Your task to perform on an android device: Show the shopping cart on costco. Add "dell xps" to the cart on costco, then select checkout. Image 0: 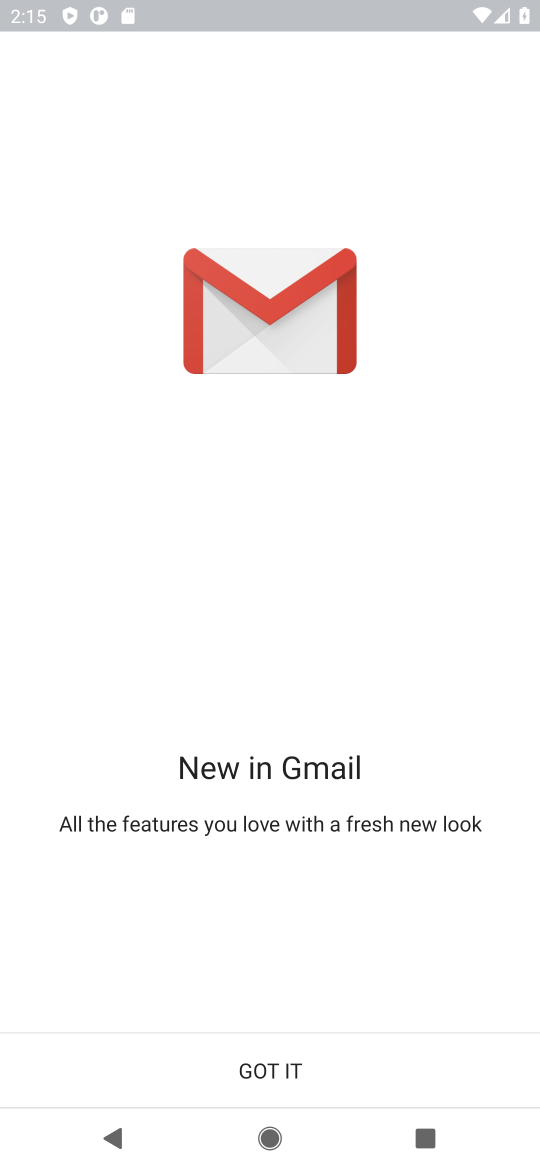
Step 0: press home button
Your task to perform on an android device: Show the shopping cart on costco. Add "dell xps" to the cart on costco, then select checkout. Image 1: 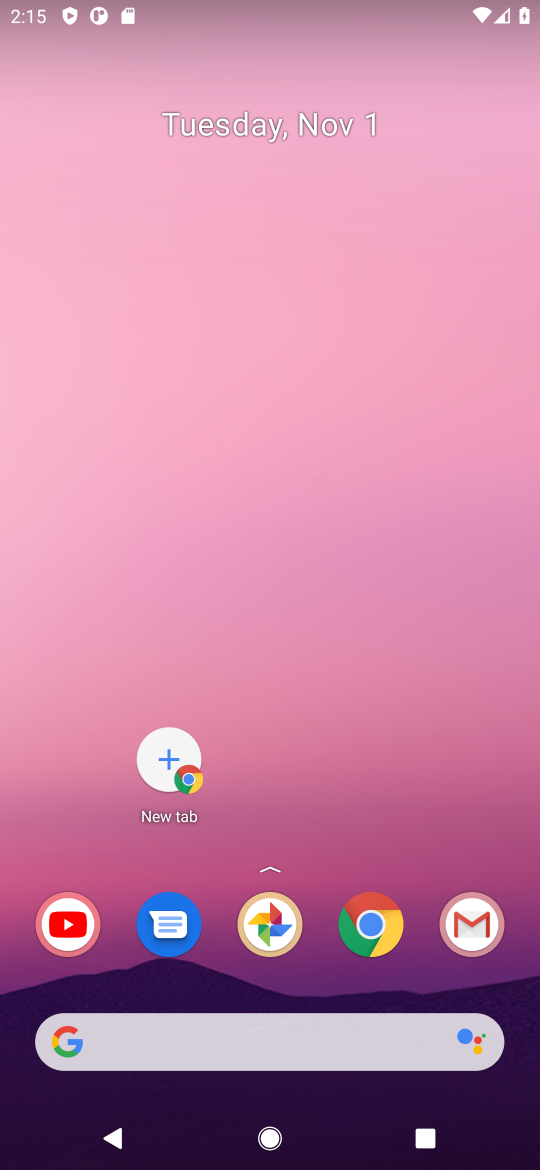
Step 1: click (377, 940)
Your task to perform on an android device: Show the shopping cart on costco. Add "dell xps" to the cart on costco, then select checkout. Image 2: 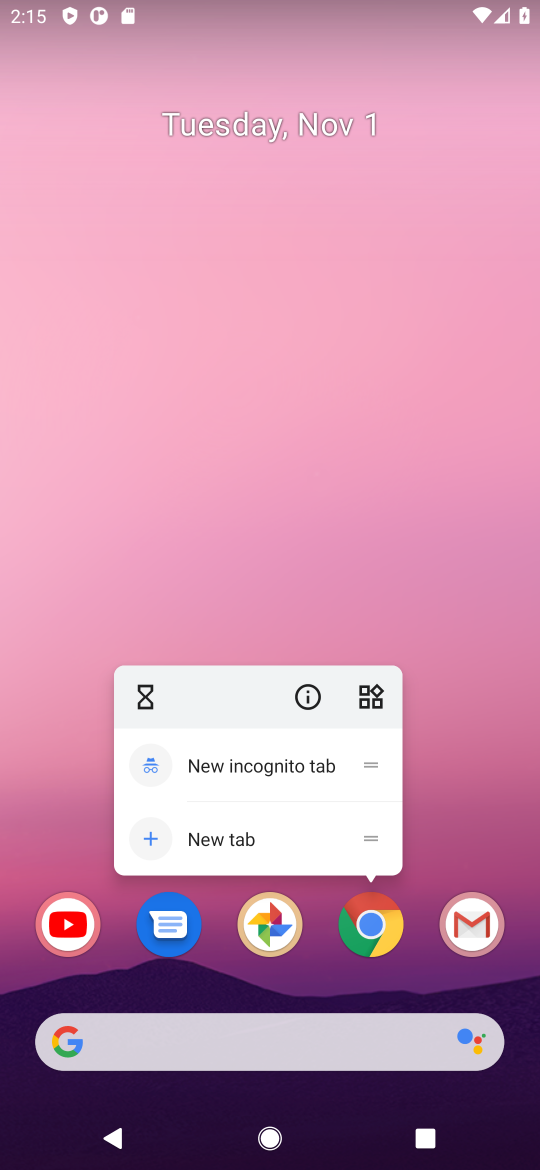
Step 2: click (391, 927)
Your task to perform on an android device: Show the shopping cart on costco. Add "dell xps" to the cart on costco, then select checkout. Image 3: 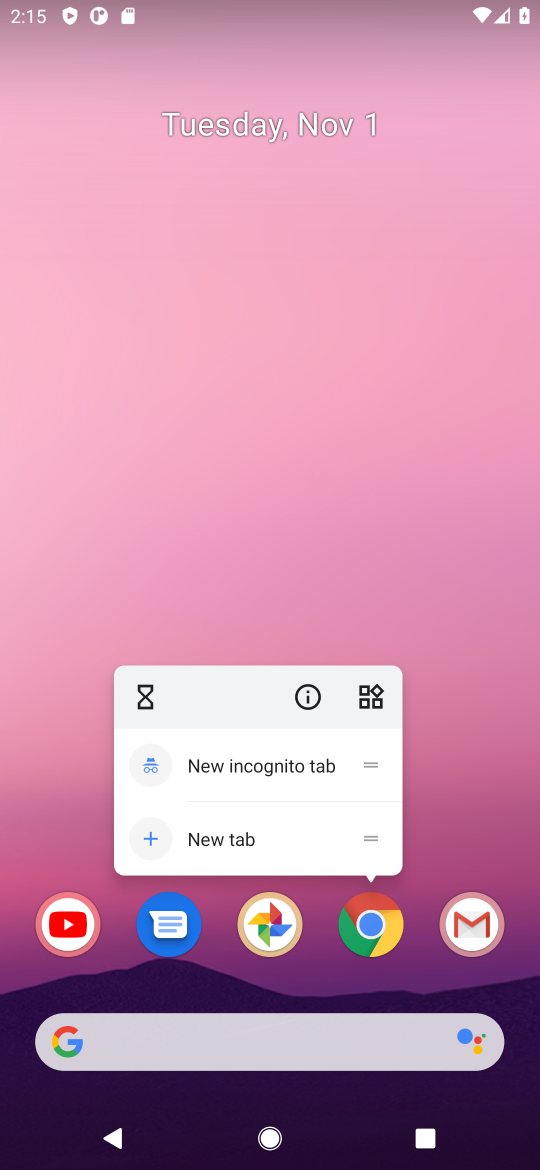
Step 3: click (395, 917)
Your task to perform on an android device: Show the shopping cart on costco. Add "dell xps" to the cart on costco, then select checkout. Image 4: 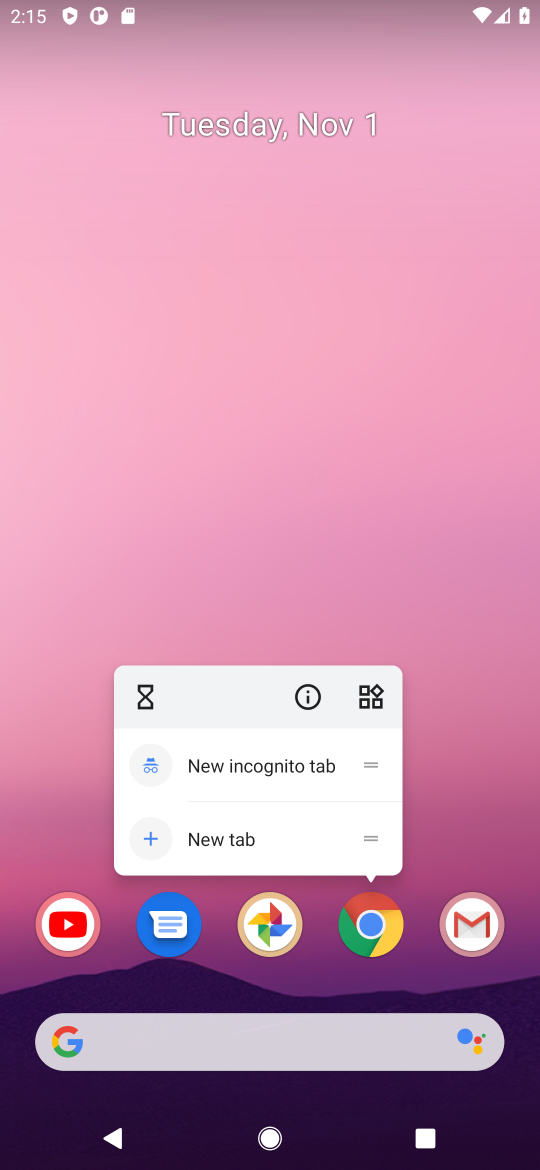
Step 4: click (374, 916)
Your task to perform on an android device: Show the shopping cart on costco. Add "dell xps" to the cart on costco, then select checkout. Image 5: 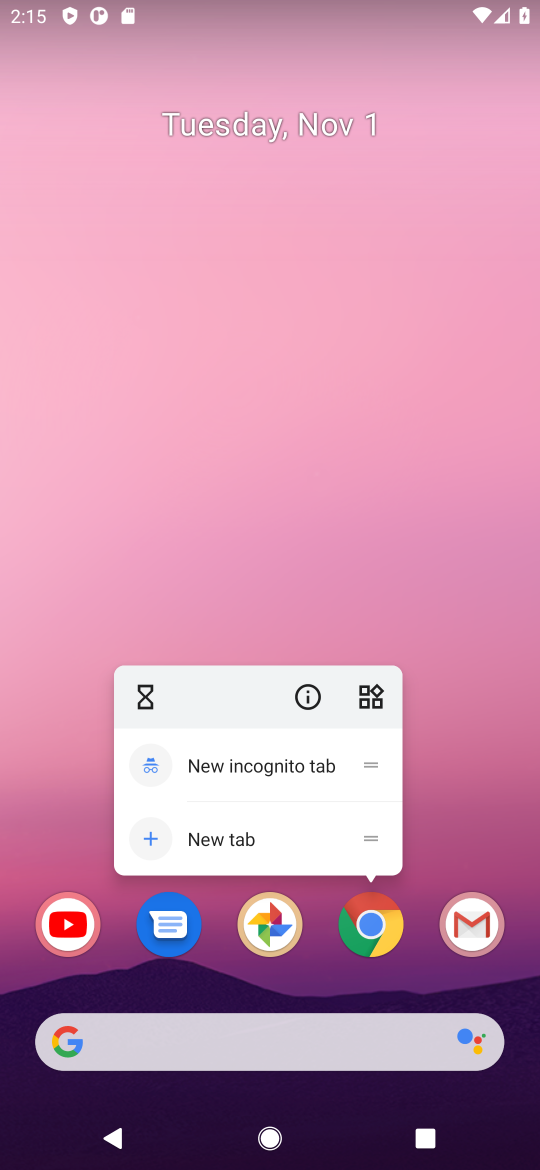
Step 5: click (376, 944)
Your task to perform on an android device: Show the shopping cart on costco. Add "dell xps" to the cart on costco, then select checkout. Image 6: 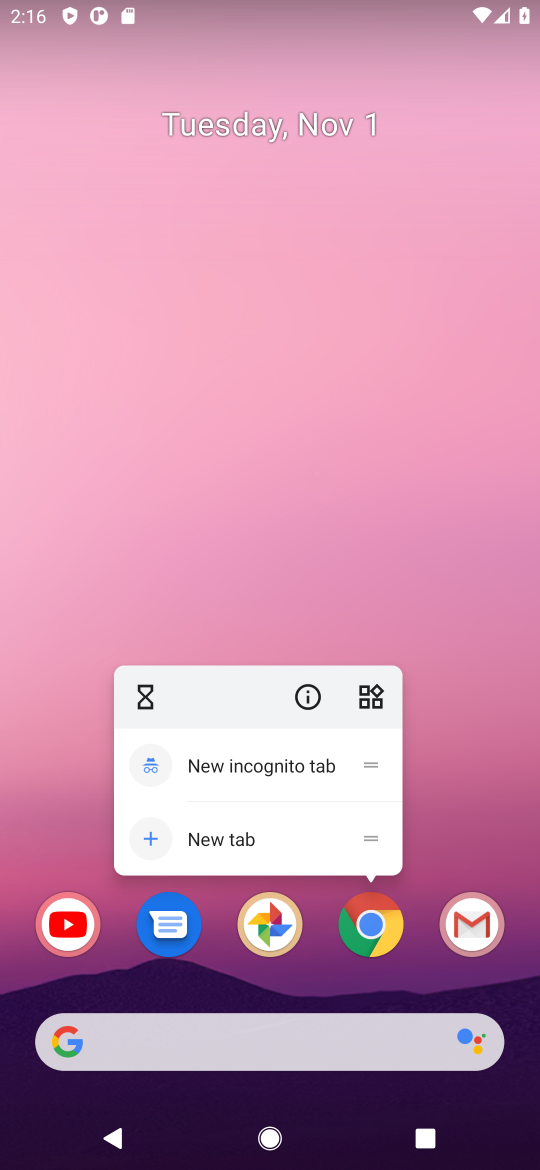
Step 6: click (377, 942)
Your task to perform on an android device: Show the shopping cart on costco. Add "dell xps" to the cart on costco, then select checkout. Image 7: 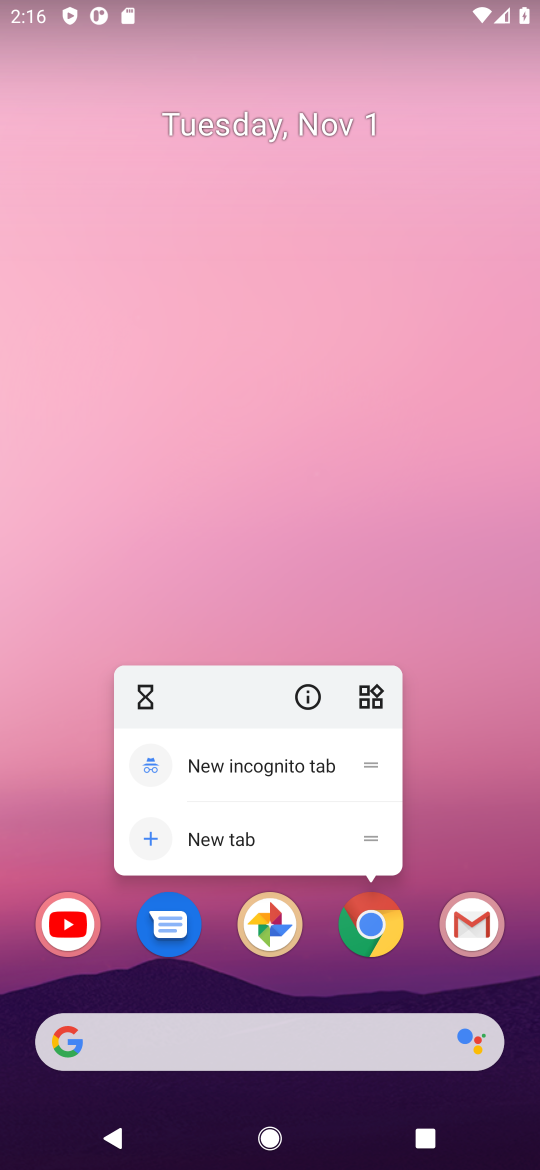
Step 7: click (379, 941)
Your task to perform on an android device: Show the shopping cart on costco. Add "dell xps" to the cart on costco, then select checkout. Image 8: 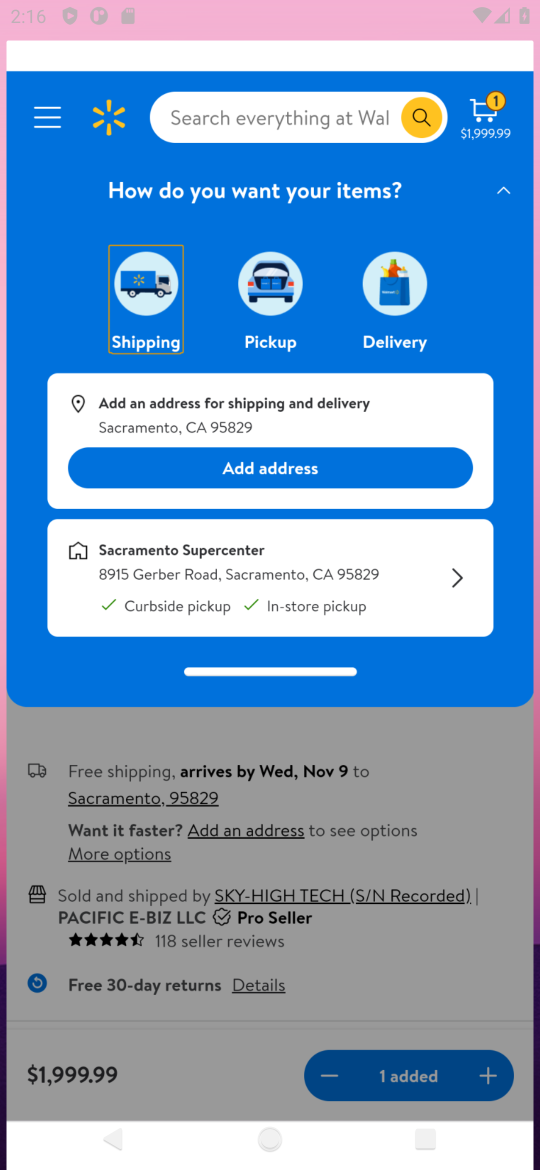
Step 8: press home button
Your task to perform on an android device: Show the shopping cart on costco. Add "dell xps" to the cart on costco, then select checkout. Image 9: 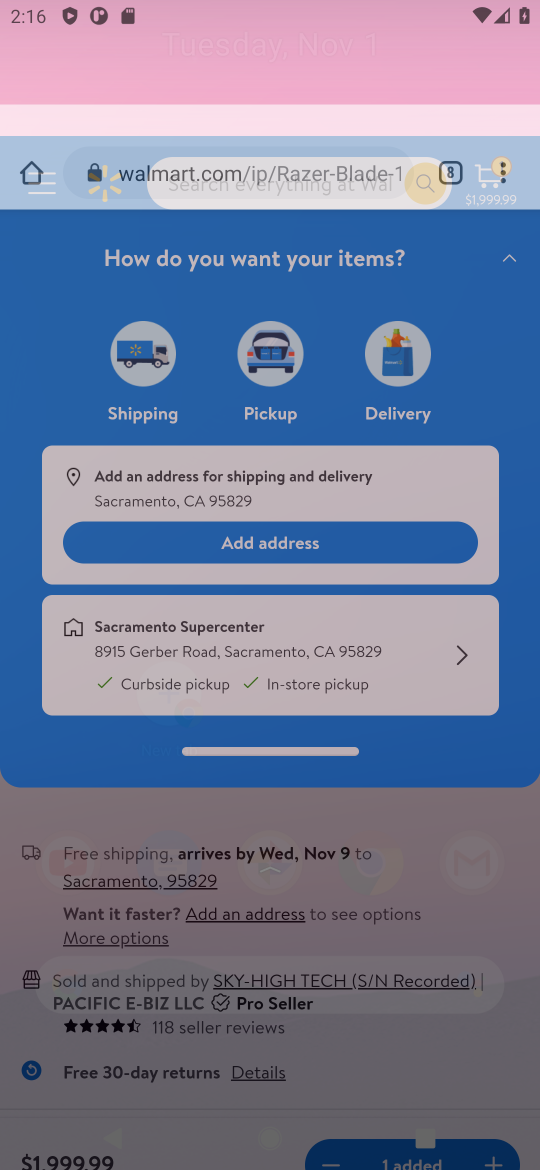
Step 9: press home button
Your task to perform on an android device: Show the shopping cart on costco. Add "dell xps" to the cart on costco, then select checkout. Image 10: 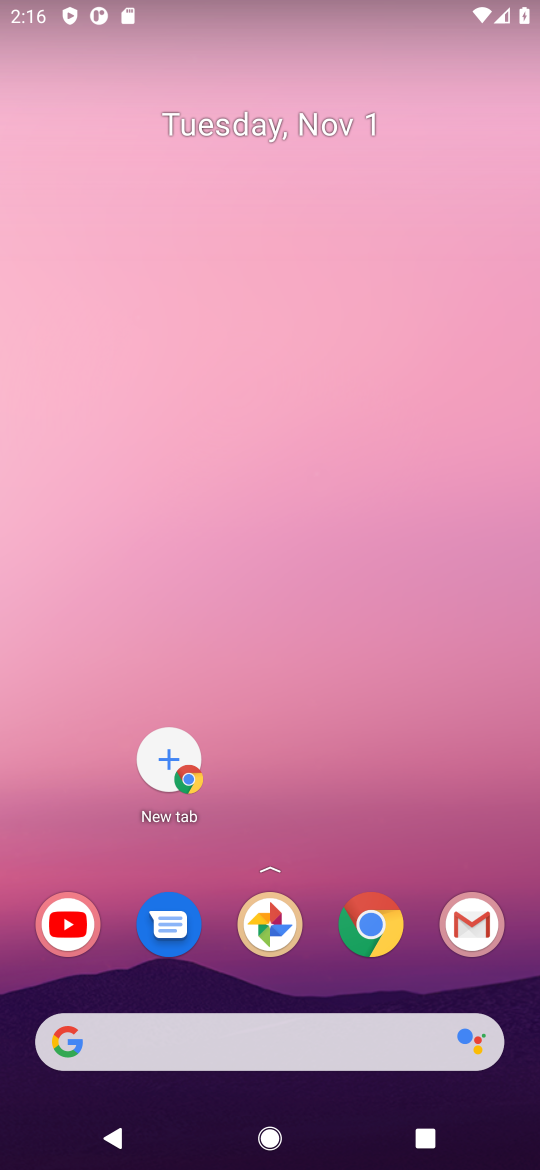
Step 10: press back button
Your task to perform on an android device: Show the shopping cart on costco. Add "dell xps" to the cart on costco, then select checkout. Image 11: 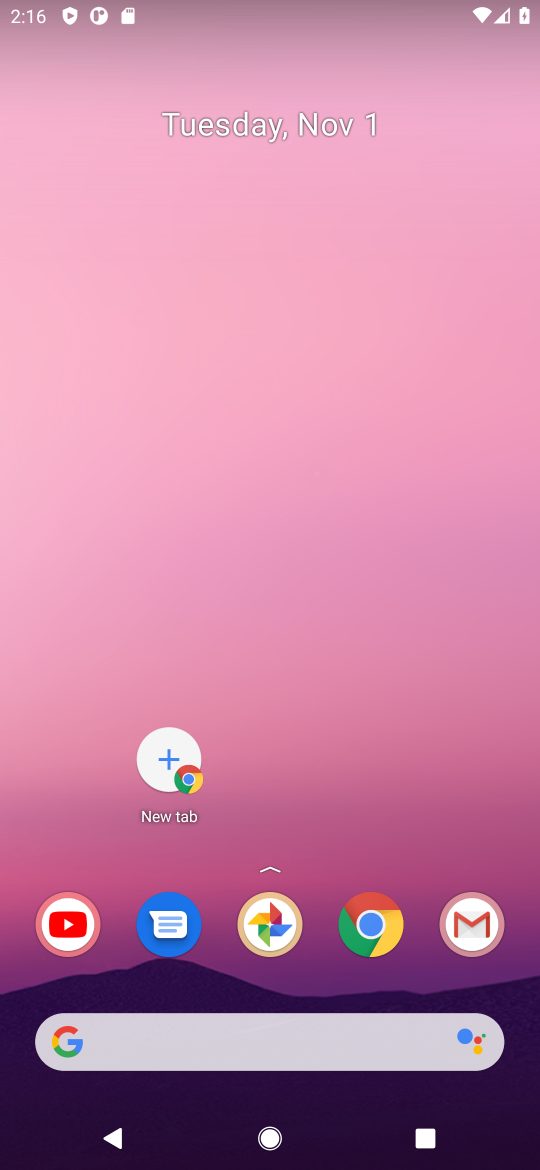
Step 11: click (373, 933)
Your task to perform on an android device: Show the shopping cart on costco. Add "dell xps" to the cart on costco, then select checkout. Image 12: 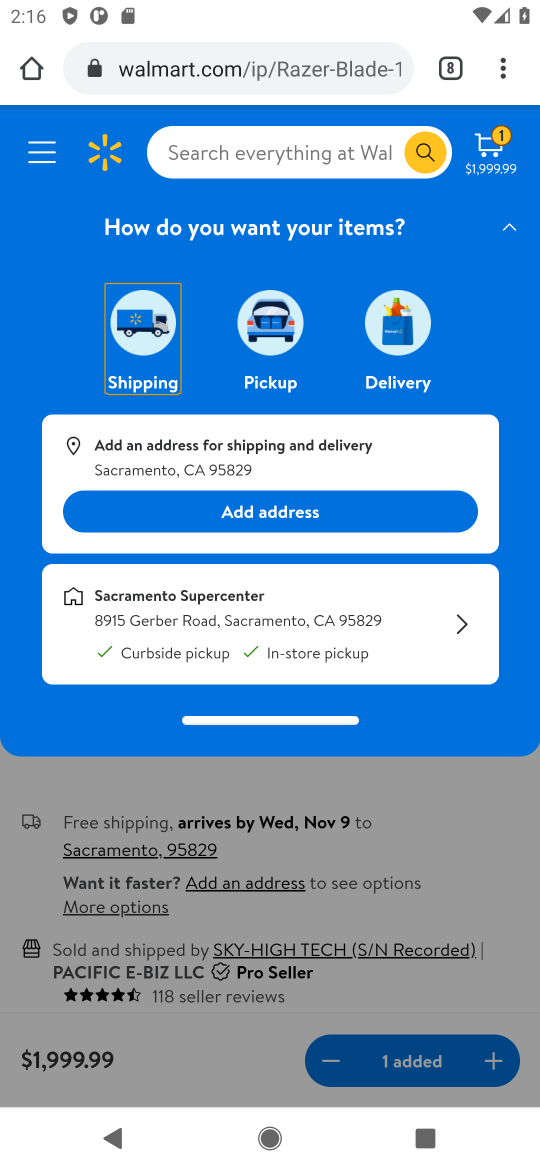
Step 12: click (271, 160)
Your task to perform on an android device: Show the shopping cart on costco. Add "dell xps" to the cart on costco, then select checkout. Image 13: 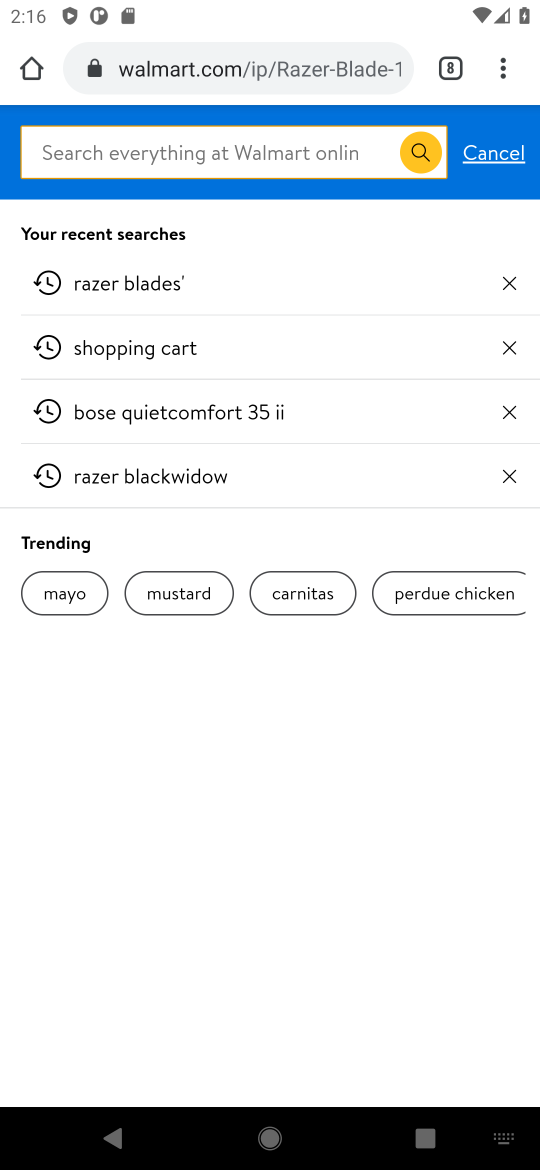
Step 13: type "dell xps"
Your task to perform on an android device: Show the shopping cart on costco. Add "dell xps" to the cart on costco, then select checkout. Image 14: 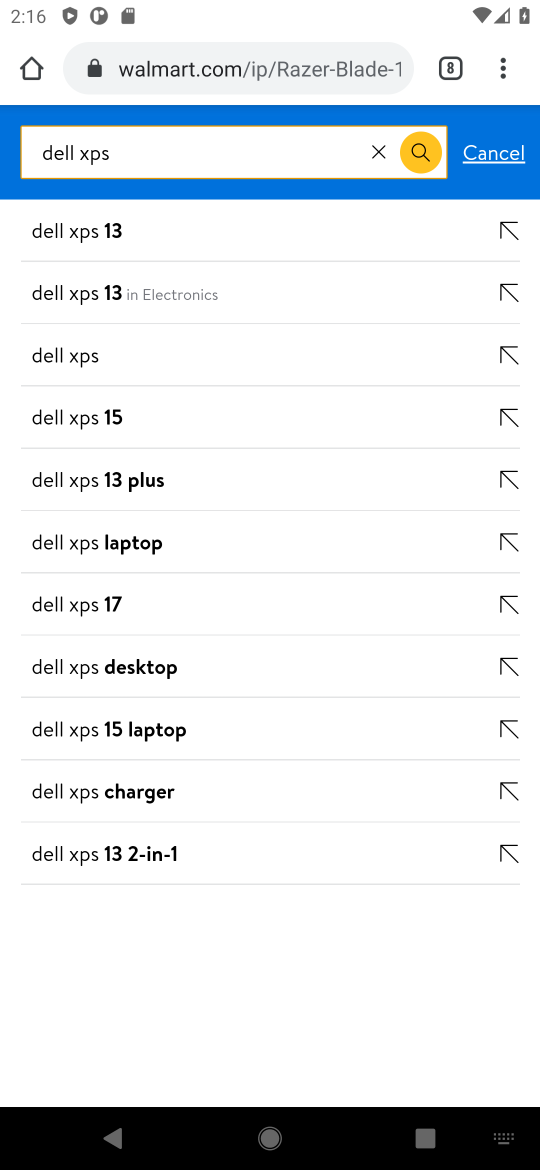
Step 14: click (360, 66)
Your task to perform on an android device: Show the shopping cart on costco. Add "dell xps" to the cart on costco, then select checkout. Image 15: 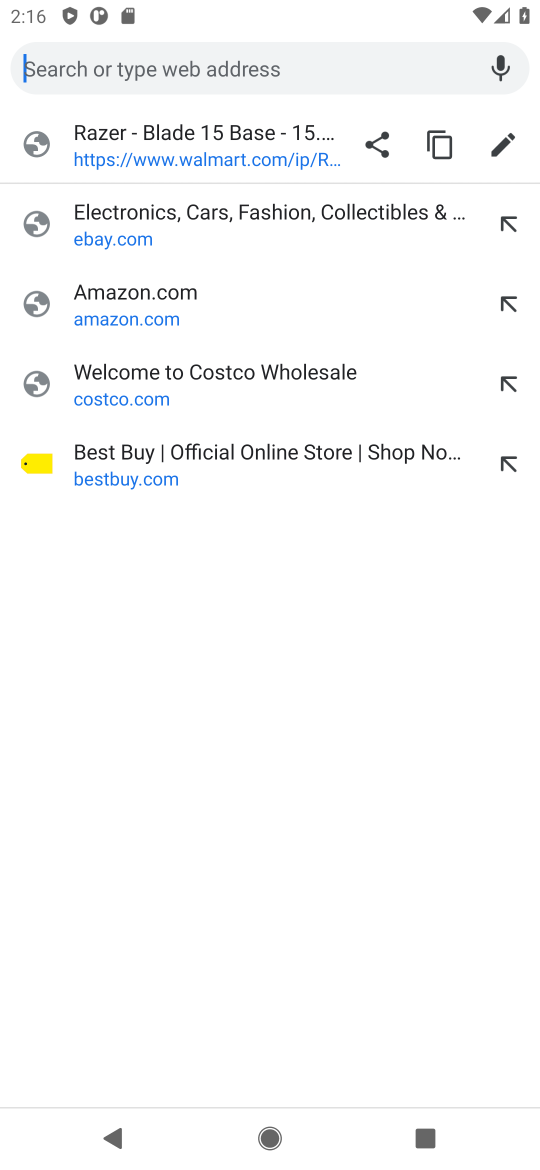
Step 15: type "costco"
Your task to perform on an android device: Show the shopping cart on costco. Add "dell xps" to the cart on costco, then select checkout. Image 16: 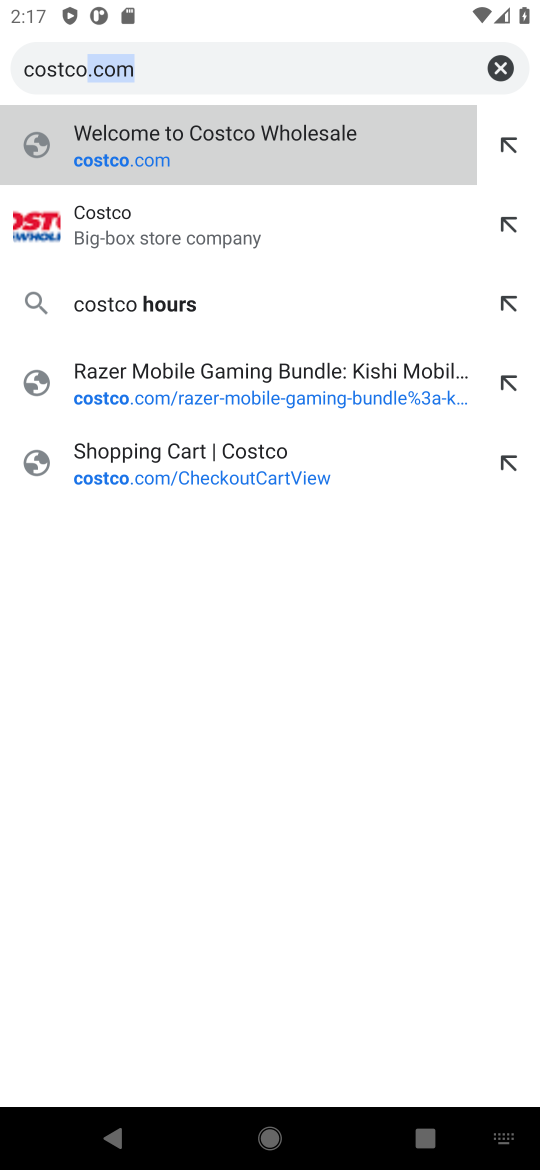
Step 16: type ""
Your task to perform on an android device: Show the shopping cart on costco. Add "dell xps" to the cart on costco, then select checkout. Image 17: 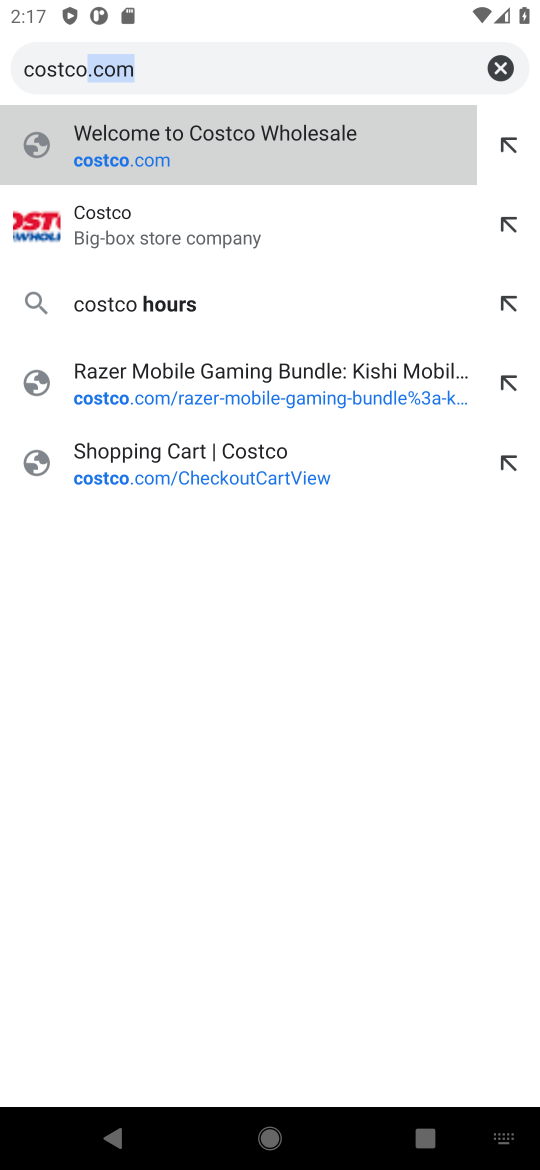
Step 17: click (116, 229)
Your task to perform on an android device: Show the shopping cart on costco. Add "dell xps" to the cart on costco, then select checkout. Image 18: 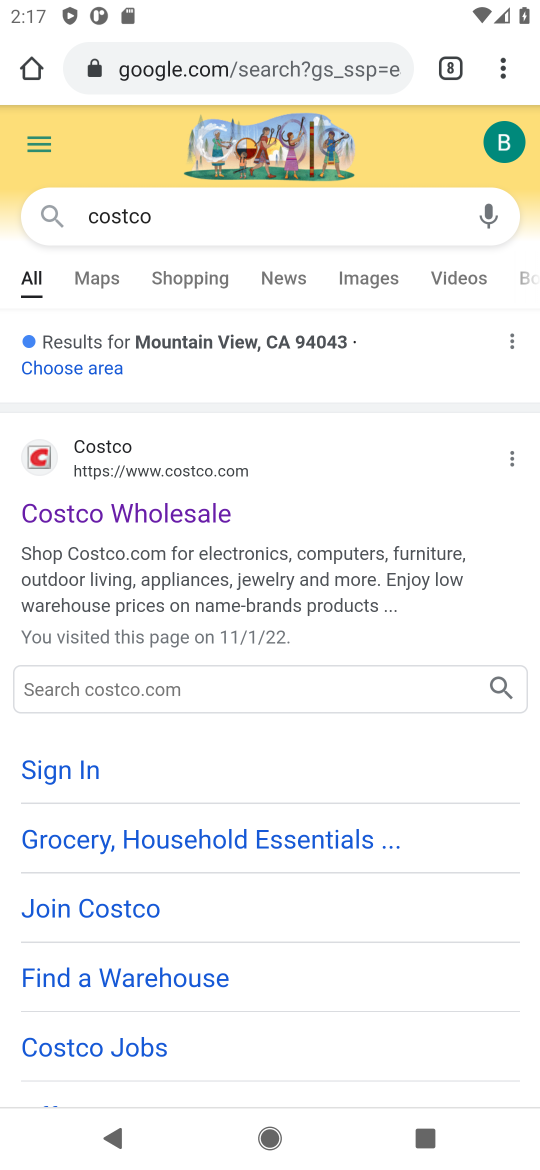
Step 18: click (151, 514)
Your task to perform on an android device: Show the shopping cart on costco. Add "dell xps" to the cart on costco, then select checkout. Image 19: 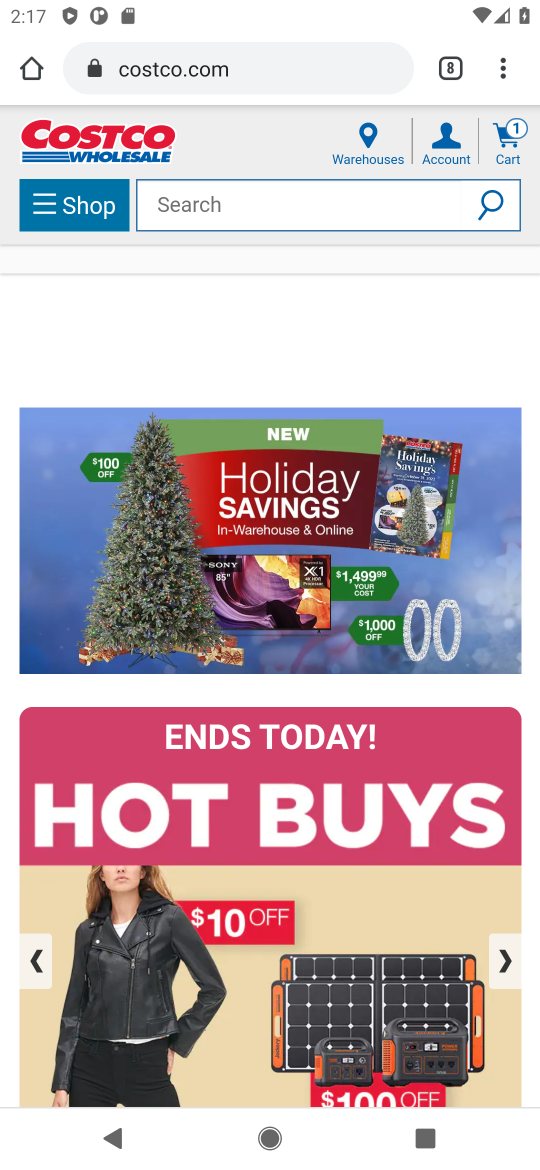
Step 19: click (240, 217)
Your task to perform on an android device: Show the shopping cart on costco. Add "dell xps" to the cart on costco, then select checkout. Image 20: 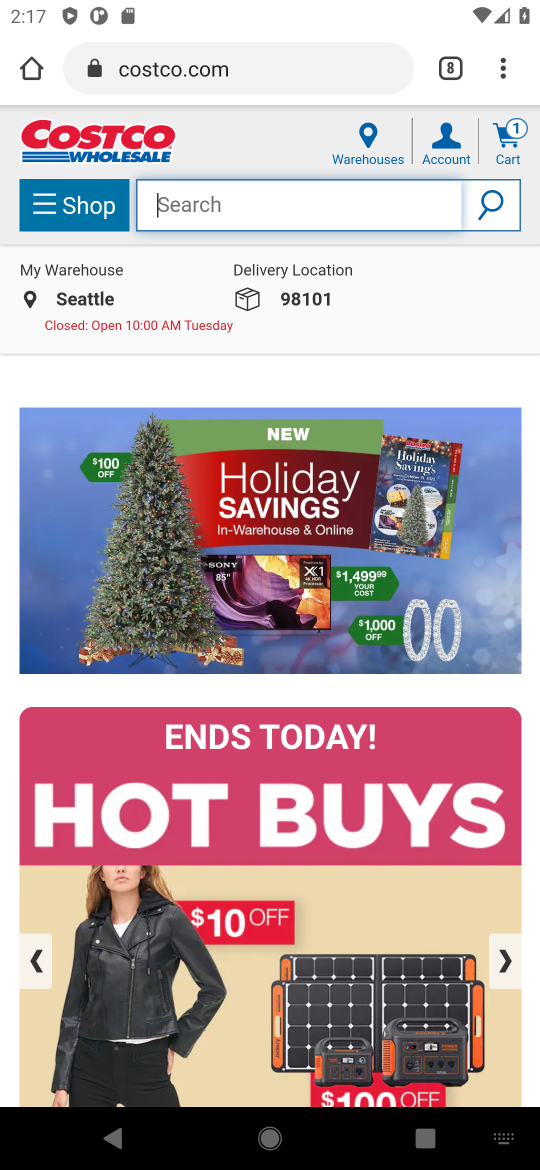
Step 20: type "dell xps"
Your task to perform on an android device: Show the shopping cart on costco. Add "dell xps" to the cart on costco, then select checkout. Image 21: 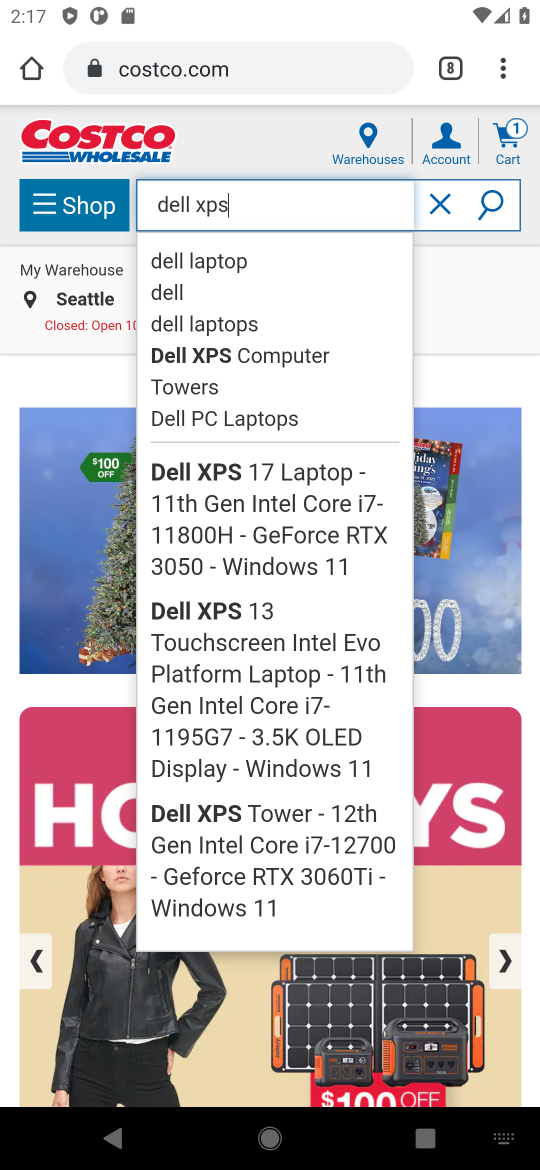
Step 21: click (182, 360)
Your task to perform on an android device: Show the shopping cart on costco. Add "dell xps" to the cart on costco, then select checkout. Image 22: 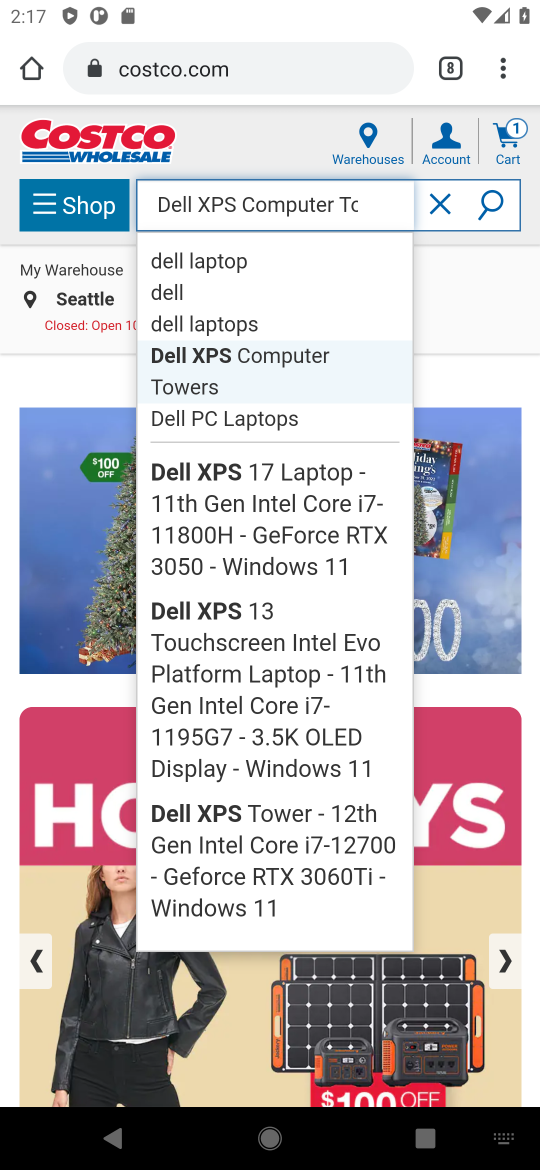
Step 22: click (316, 376)
Your task to perform on an android device: Show the shopping cart on costco. Add "dell xps" to the cart on costco, then select checkout. Image 23: 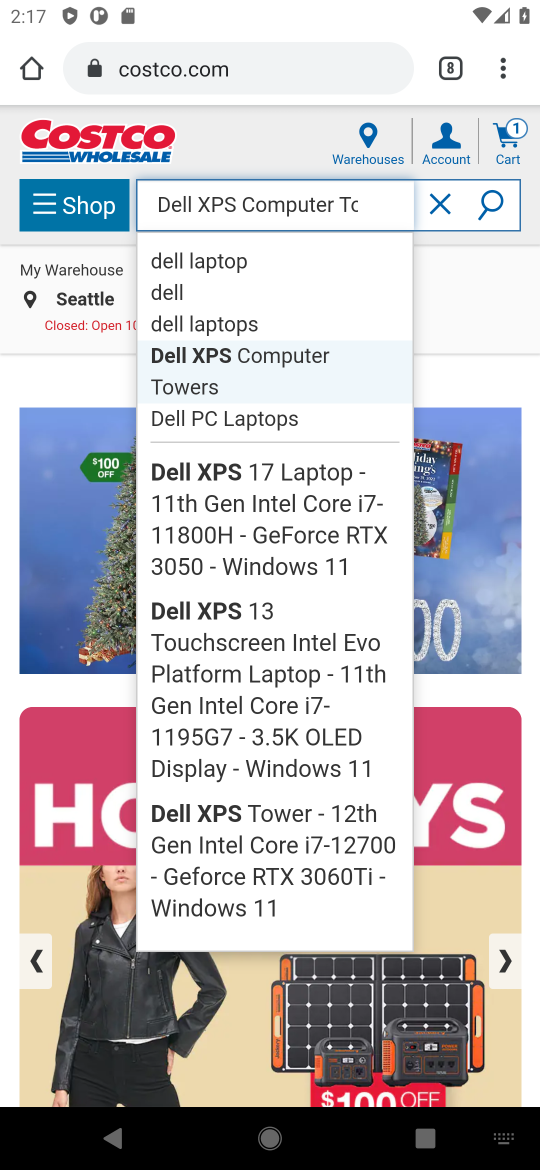
Step 23: click (357, 385)
Your task to perform on an android device: Show the shopping cart on costco. Add "dell xps" to the cart on costco, then select checkout. Image 24: 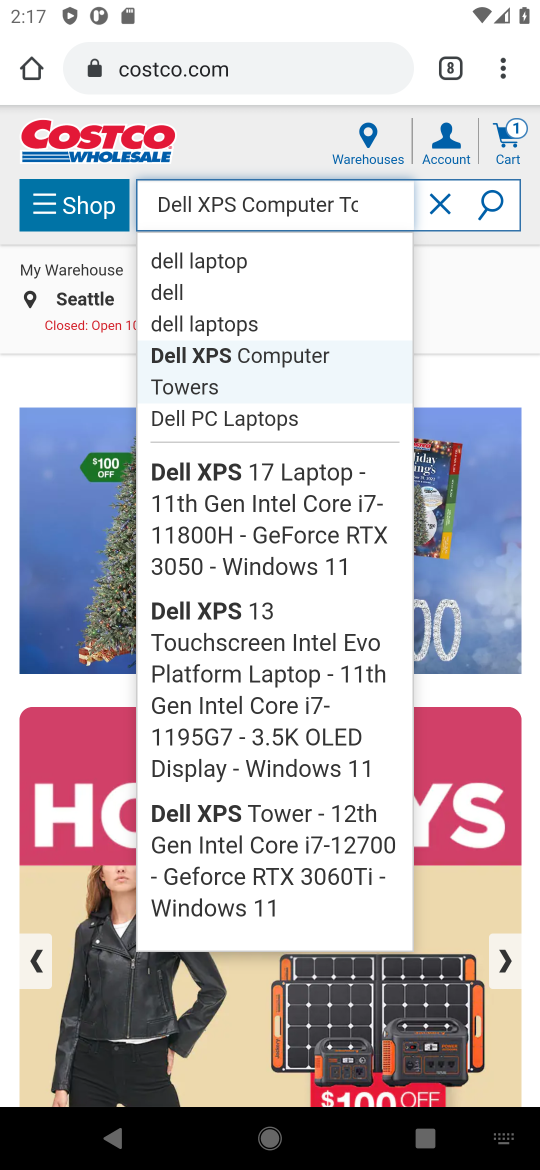
Step 24: click (356, 369)
Your task to perform on an android device: Show the shopping cart on costco. Add "dell xps" to the cart on costco, then select checkout. Image 25: 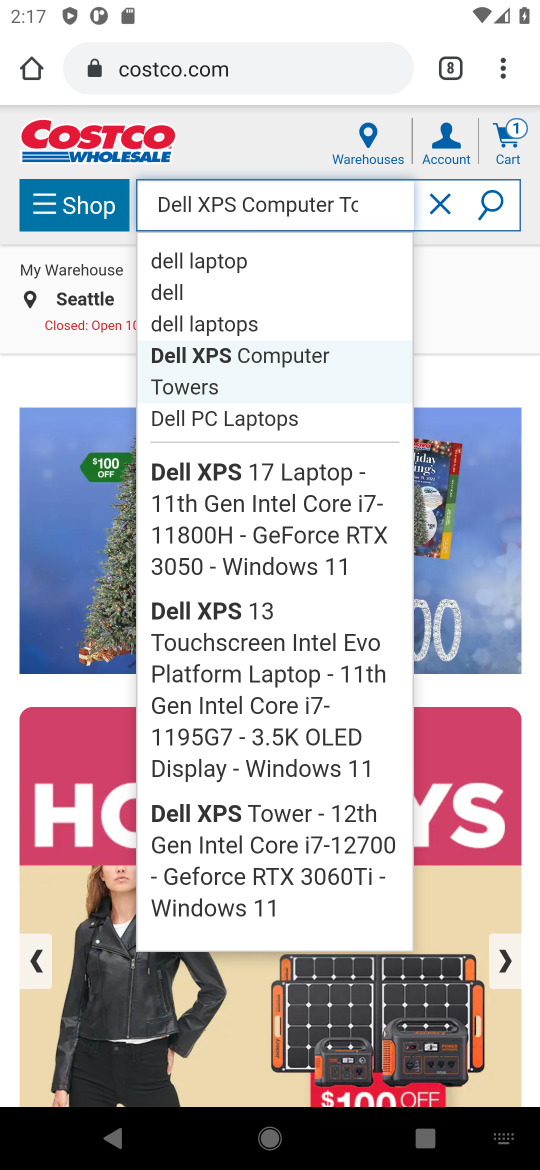
Step 25: click (356, 369)
Your task to perform on an android device: Show the shopping cart on costco. Add "dell xps" to the cart on costco, then select checkout. Image 26: 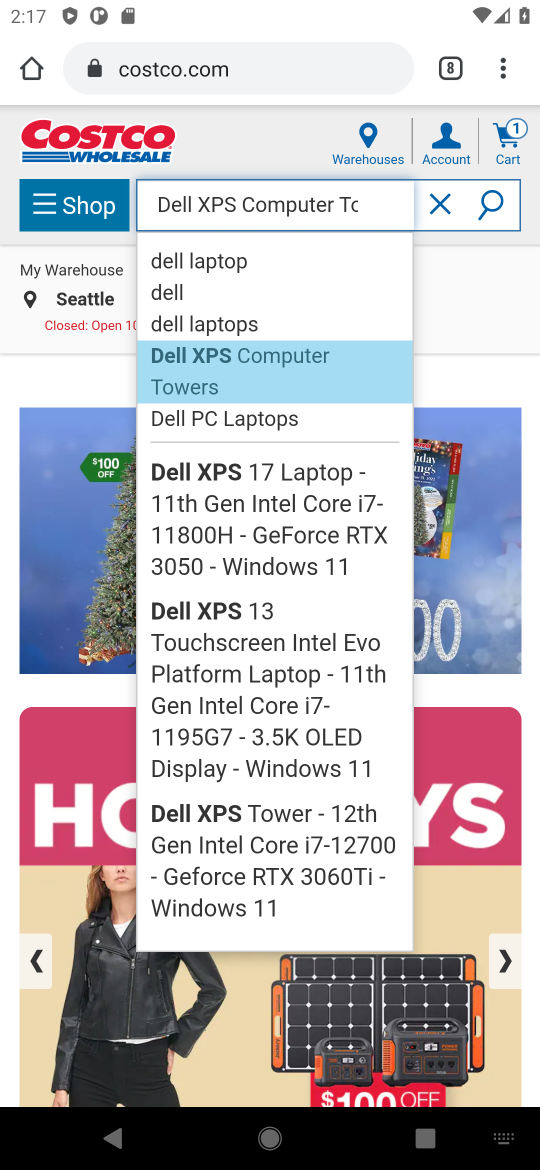
Step 26: click (263, 499)
Your task to perform on an android device: Show the shopping cart on costco. Add "dell xps" to the cart on costco, then select checkout. Image 27: 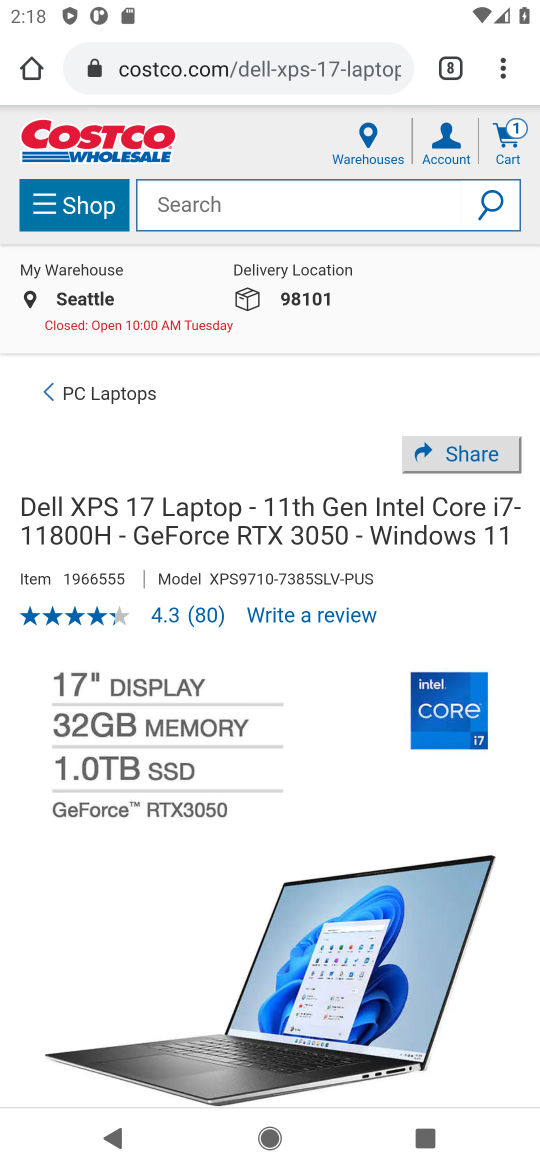
Step 27: drag from (233, 769) to (244, 309)
Your task to perform on an android device: Show the shopping cart on costco. Add "dell xps" to the cart on costco, then select checkout. Image 28: 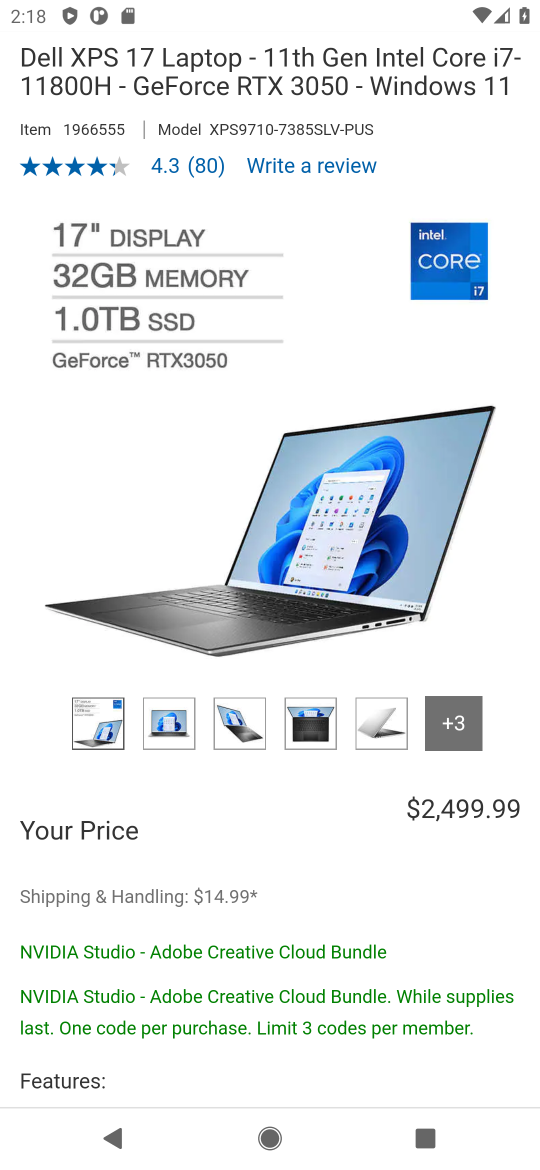
Step 28: drag from (202, 915) to (294, 292)
Your task to perform on an android device: Show the shopping cart on costco. Add "dell xps" to the cart on costco, then select checkout. Image 29: 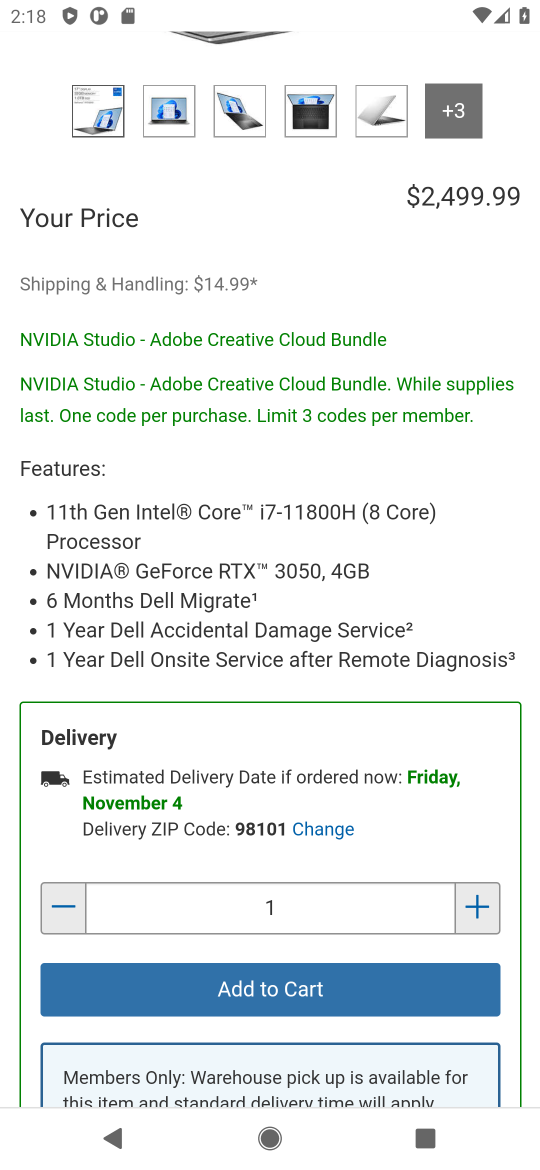
Step 29: click (257, 988)
Your task to perform on an android device: Show the shopping cart on costco. Add "dell xps" to the cart on costco, then select checkout. Image 30: 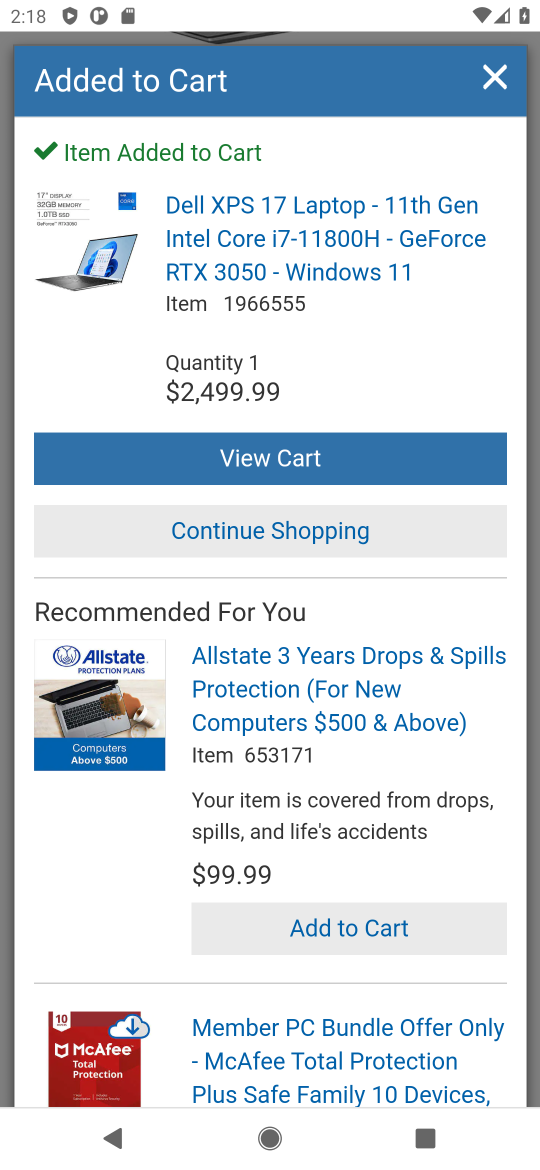
Step 30: click (310, 449)
Your task to perform on an android device: Show the shopping cart on costco. Add "dell xps" to the cart on costco, then select checkout. Image 31: 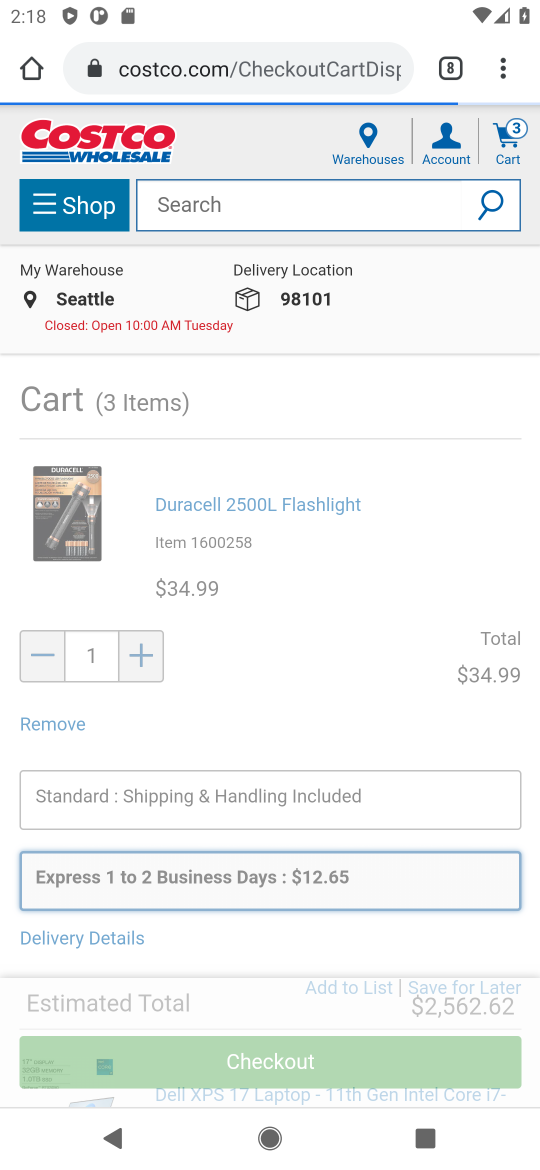
Step 31: drag from (226, 967) to (321, 161)
Your task to perform on an android device: Show the shopping cart on costco. Add "dell xps" to the cart on costco, then select checkout. Image 32: 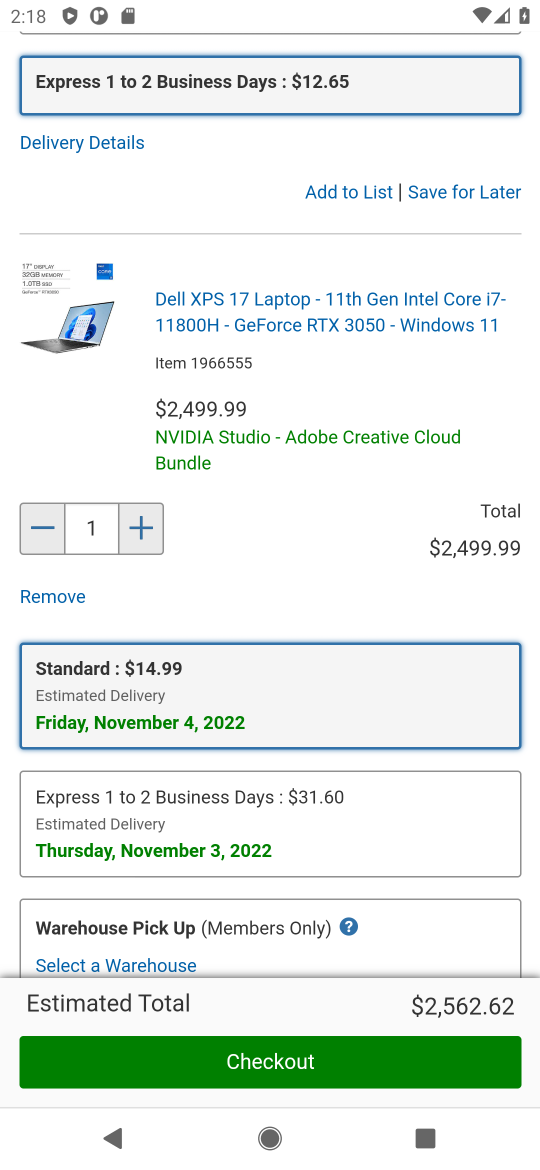
Step 32: click (291, 1067)
Your task to perform on an android device: Show the shopping cart on costco. Add "dell xps" to the cart on costco, then select checkout. Image 33: 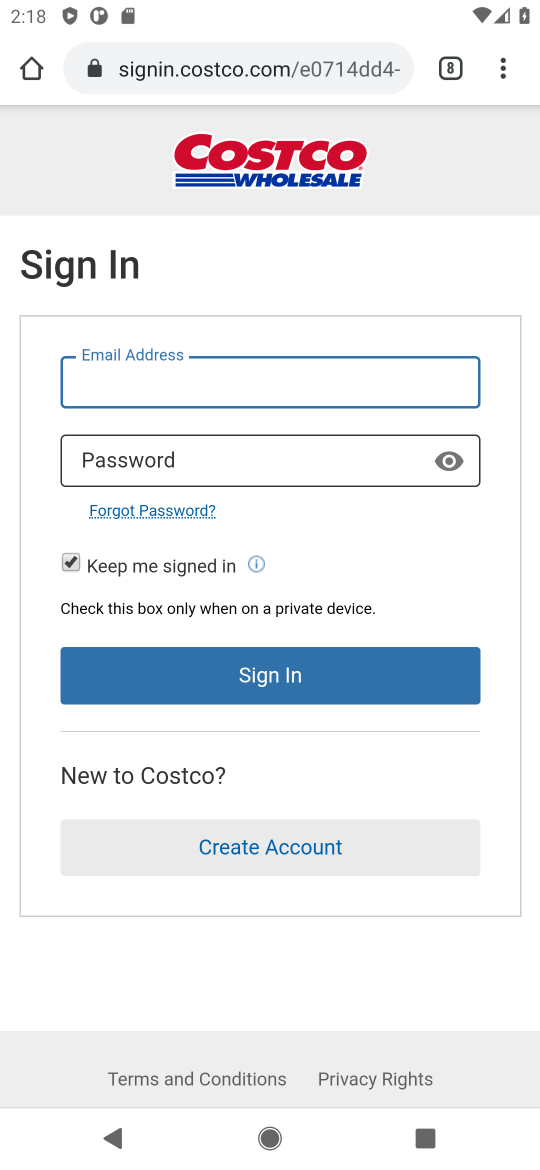
Step 33: press home button
Your task to perform on an android device: Show the shopping cart on costco. Add "dell xps" to the cart on costco, then select checkout. Image 34: 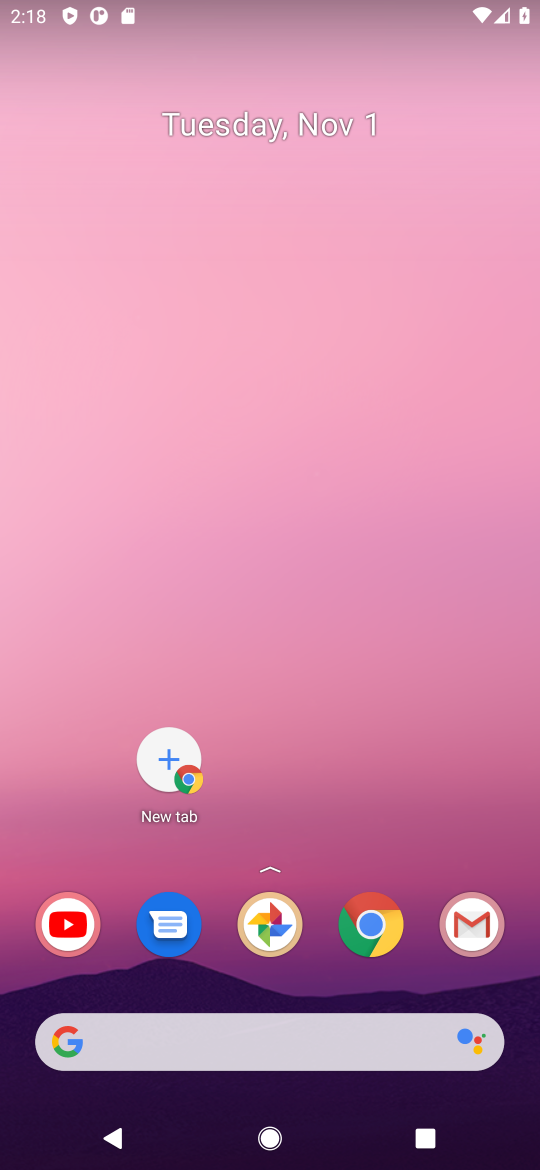
Step 34: click (364, 946)
Your task to perform on an android device: Show the shopping cart on costco. Add "dell xps" to the cart on costco, then select checkout. Image 35: 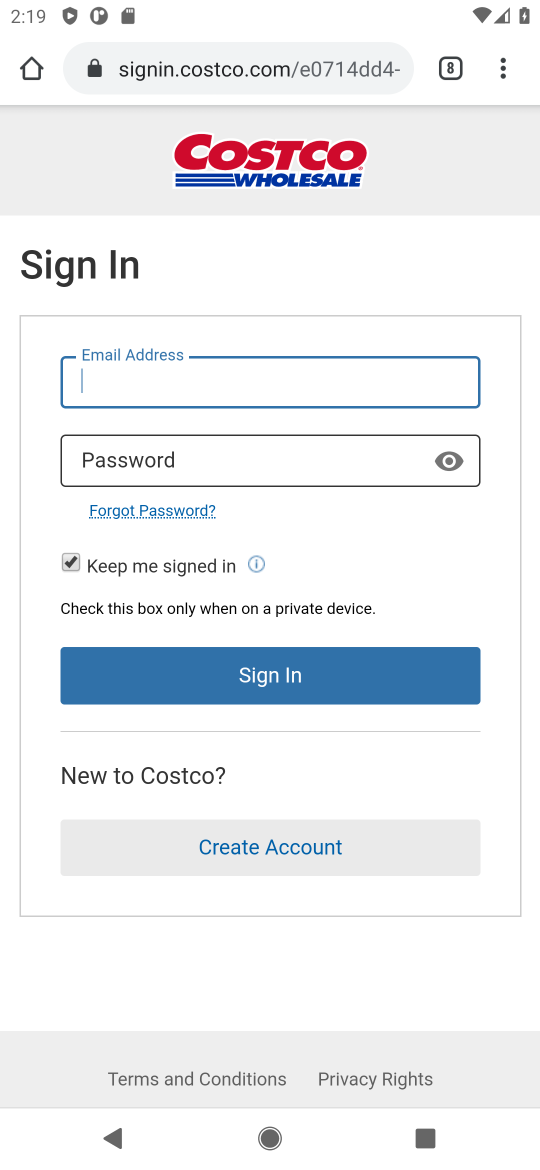
Step 35: click (164, 58)
Your task to perform on an android device: Show the shopping cart on costco. Add "dell xps" to the cart on costco, then select checkout. Image 36: 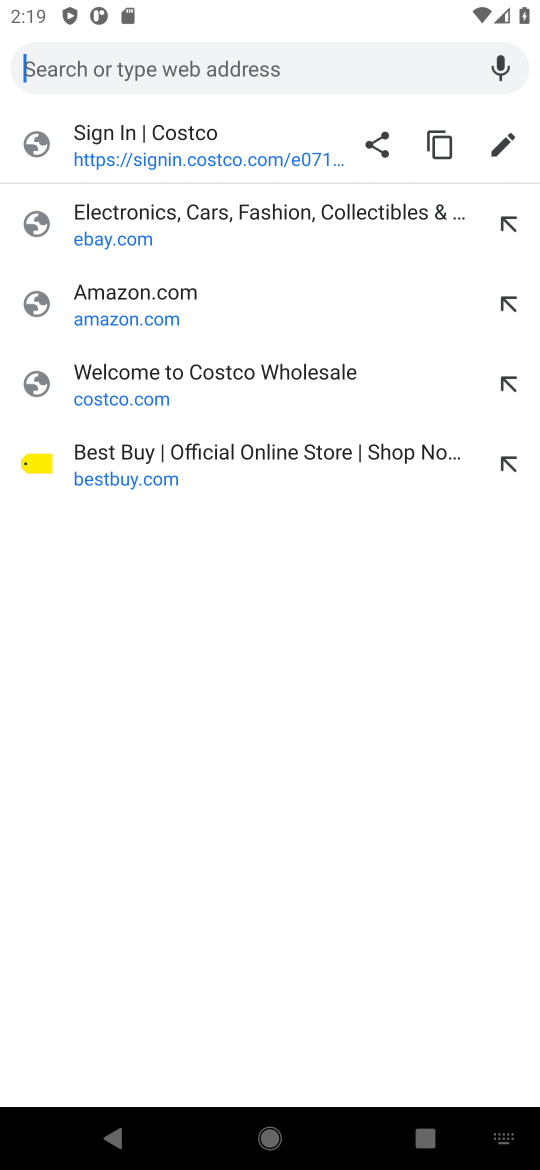
Step 36: click (238, 159)
Your task to perform on an android device: Show the shopping cart on costco. Add "dell xps" to the cart on costco, then select checkout. Image 37: 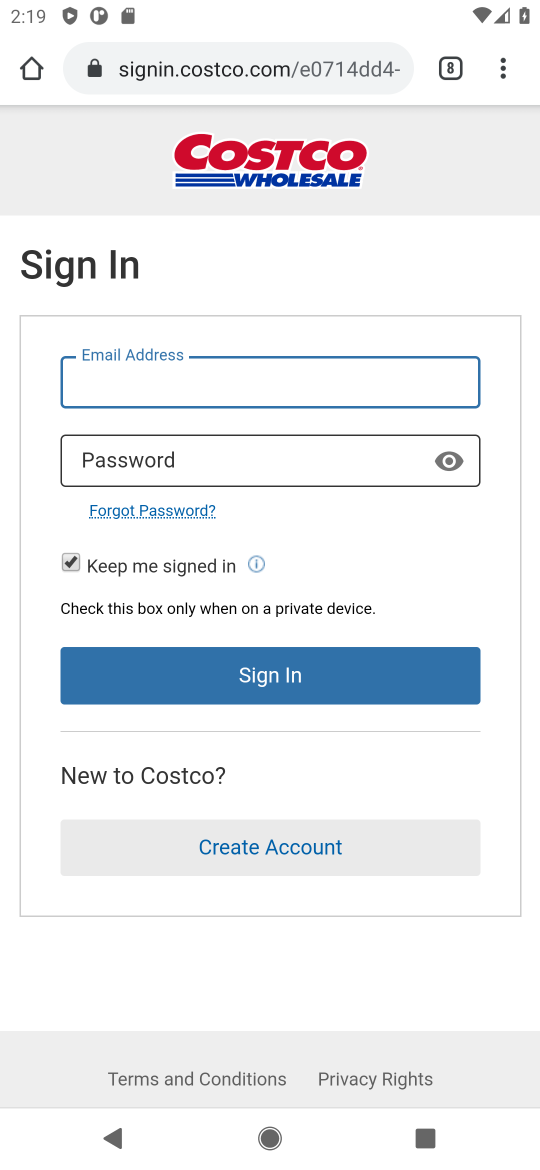
Step 37: task complete